Your task to perform on an android device: choose inbox layout in the gmail app Image 0: 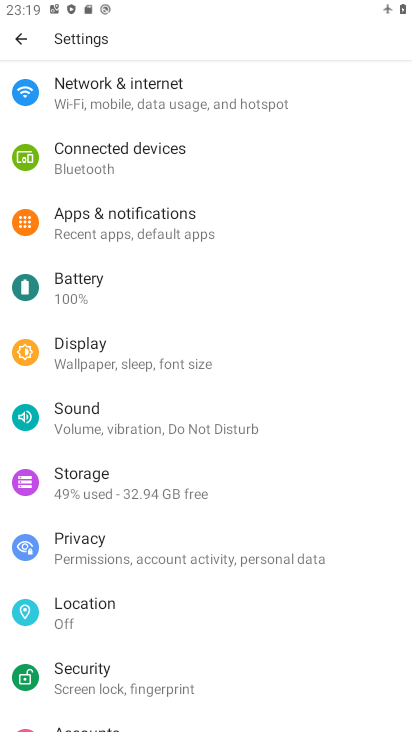
Step 0: press home button
Your task to perform on an android device: choose inbox layout in the gmail app Image 1: 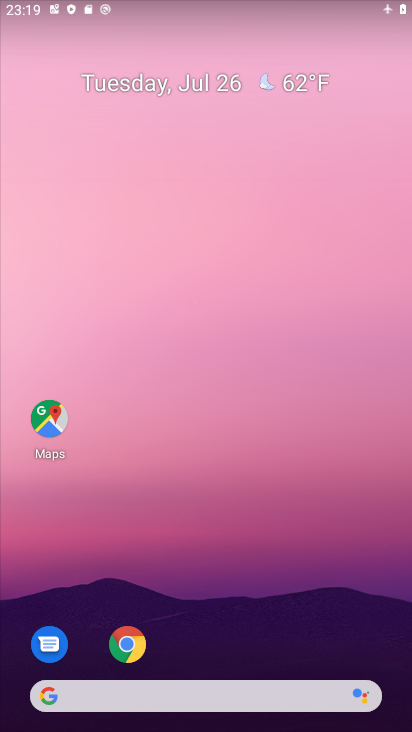
Step 1: drag from (250, 546) to (241, 1)
Your task to perform on an android device: choose inbox layout in the gmail app Image 2: 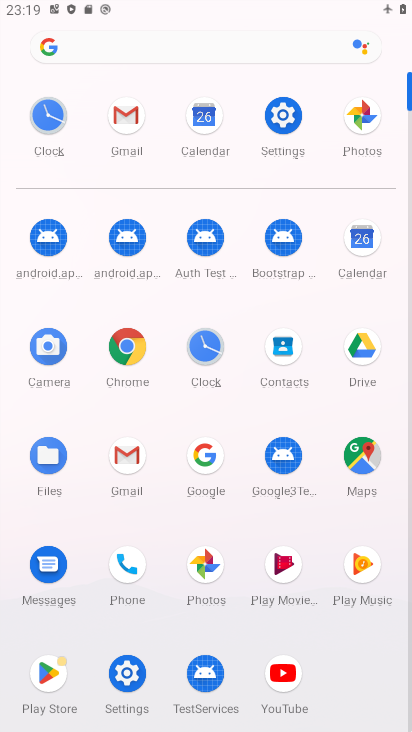
Step 2: click (124, 121)
Your task to perform on an android device: choose inbox layout in the gmail app Image 3: 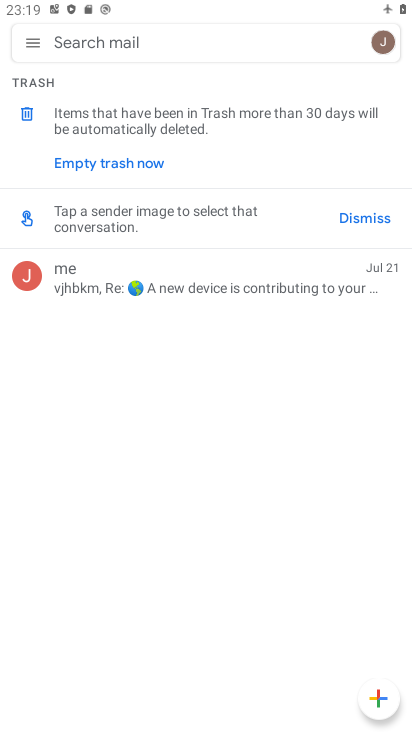
Step 3: click (32, 49)
Your task to perform on an android device: choose inbox layout in the gmail app Image 4: 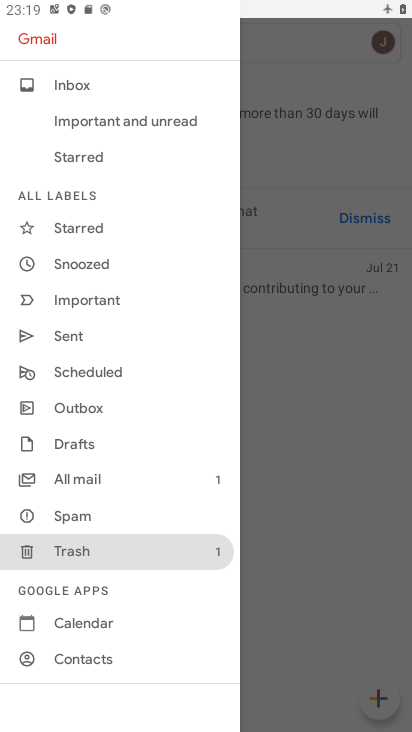
Step 4: drag from (68, 621) to (72, 140)
Your task to perform on an android device: choose inbox layout in the gmail app Image 5: 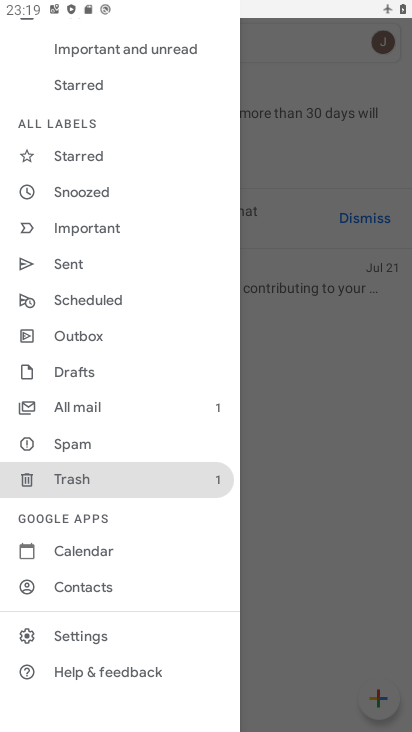
Step 5: click (85, 638)
Your task to perform on an android device: choose inbox layout in the gmail app Image 6: 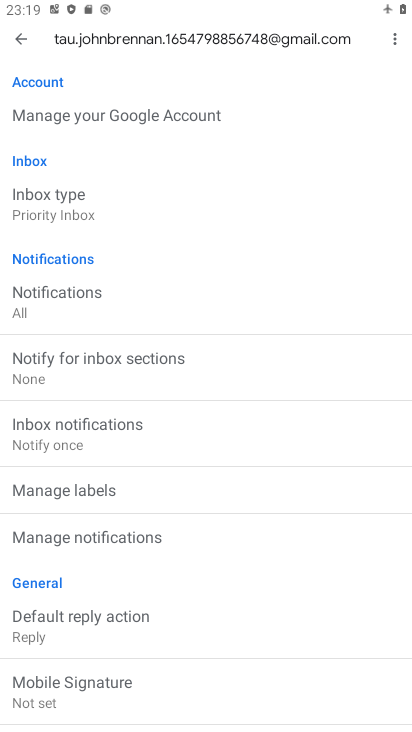
Step 6: click (64, 206)
Your task to perform on an android device: choose inbox layout in the gmail app Image 7: 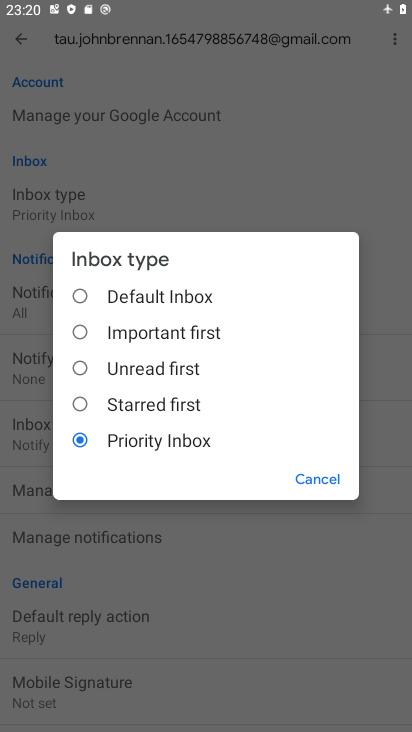
Step 7: click (95, 362)
Your task to perform on an android device: choose inbox layout in the gmail app Image 8: 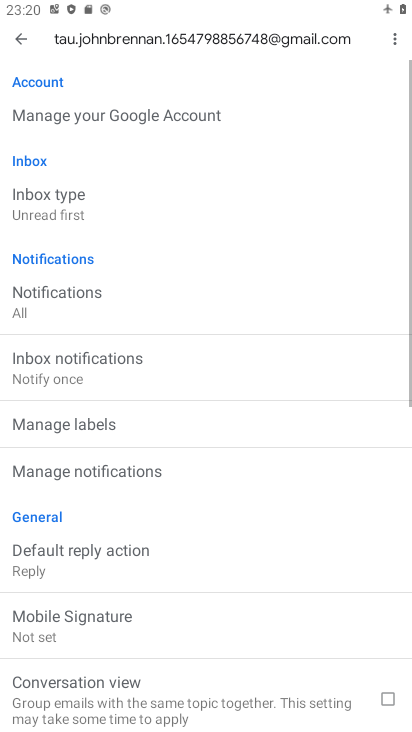
Step 8: task complete